Your task to perform on an android device: show emergency info Image 0: 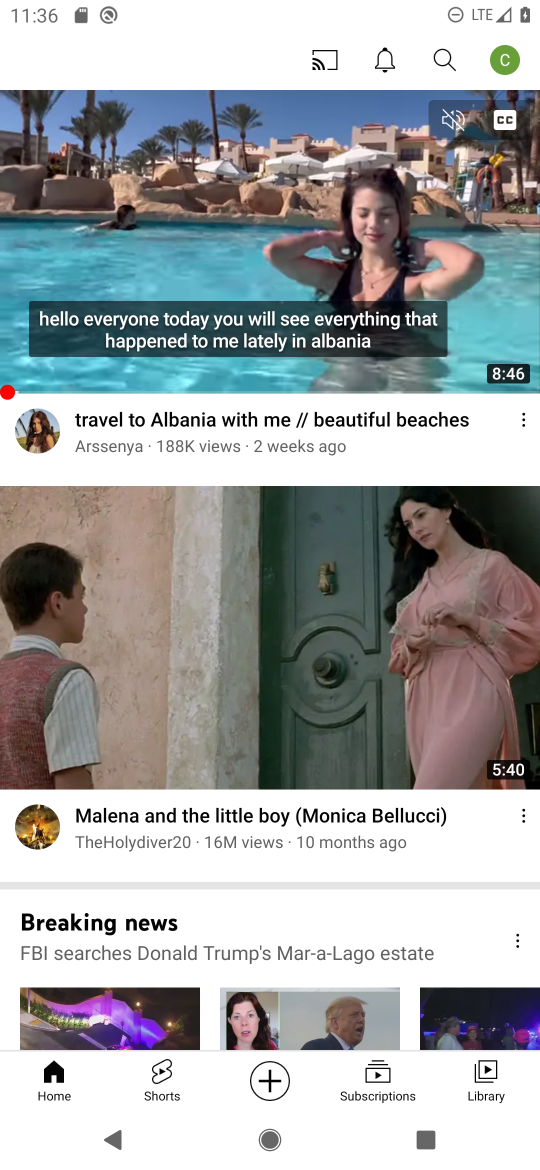
Step 0: press home button
Your task to perform on an android device: show emergency info Image 1: 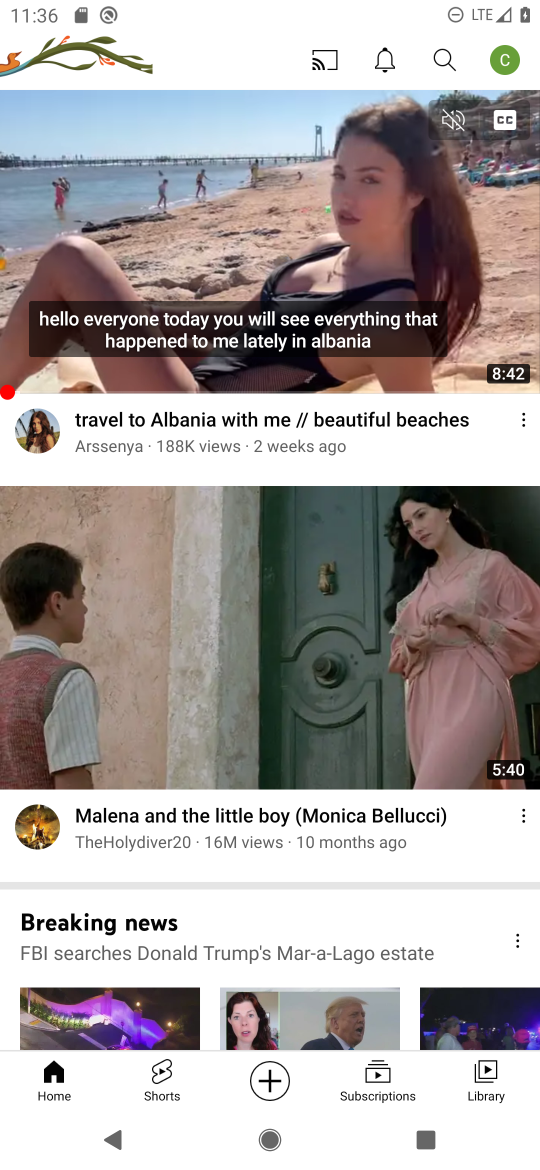
Step 1: press home button
Your task to perform on an android device: show emergency info Image 2: 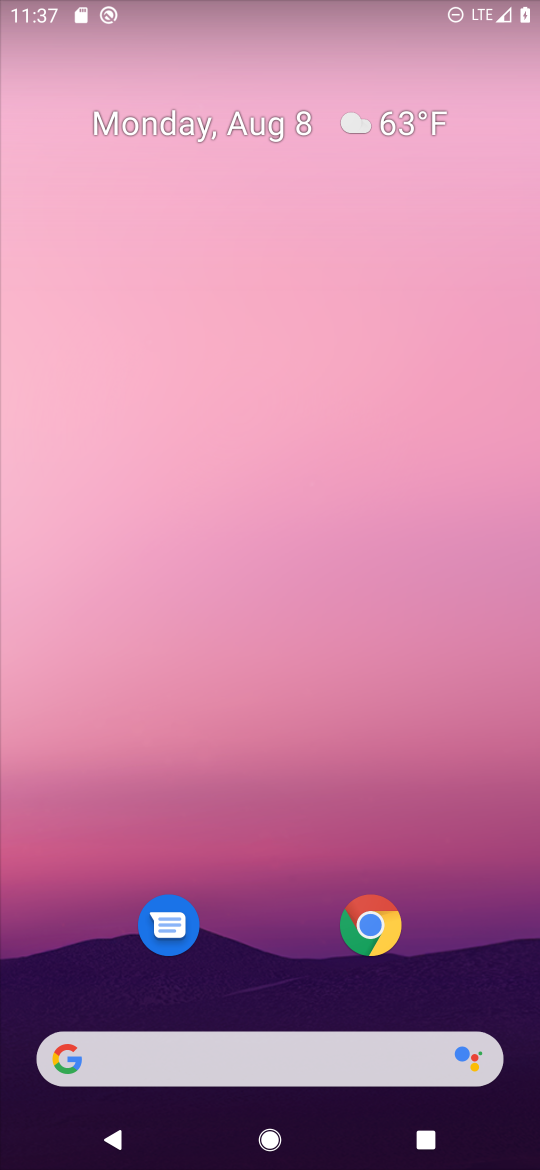
Step 2: drag from (266, 883) to (311, 409)
Your task to perform on an android device: show emergency info Image 3: 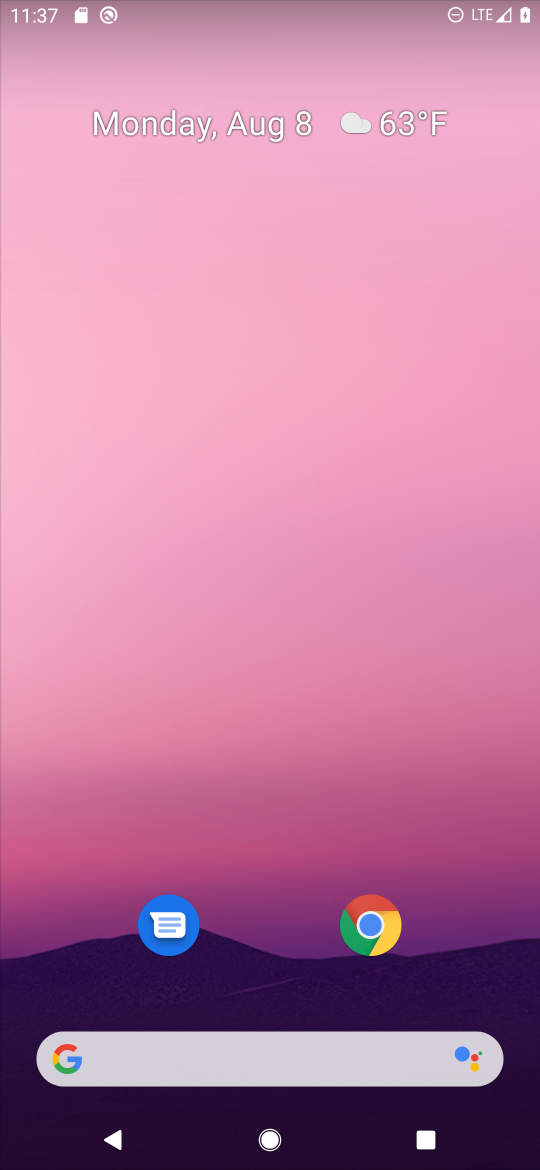
Step 3: drag from (254, 986) to (201, 362)
Your task to perform on an android device: show emergency info Image 4: 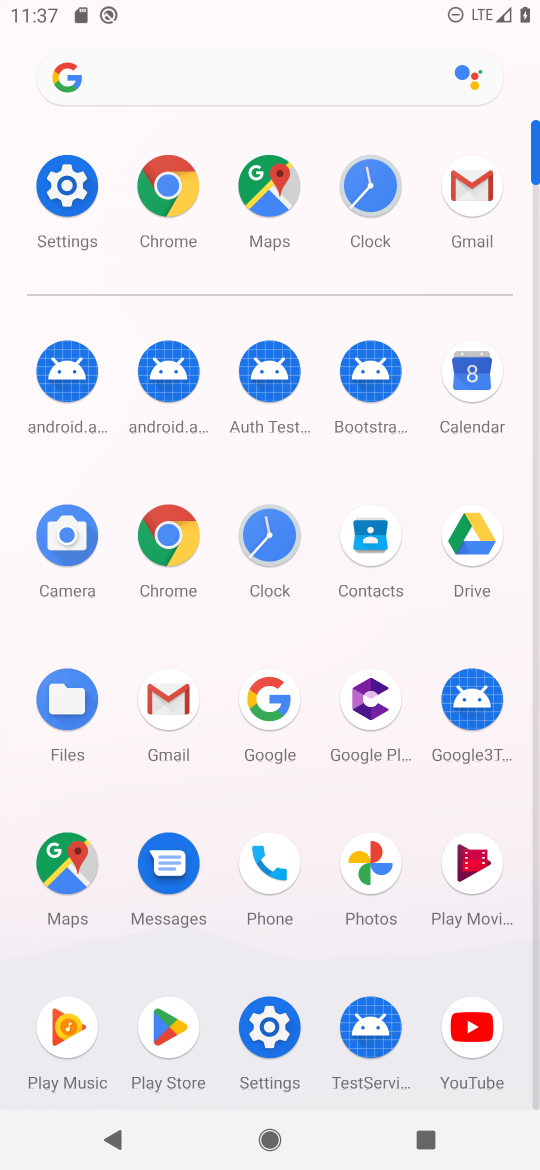
Step 4: click (68, 169)
Your task to perform on an android device: show emergency info Image 5: 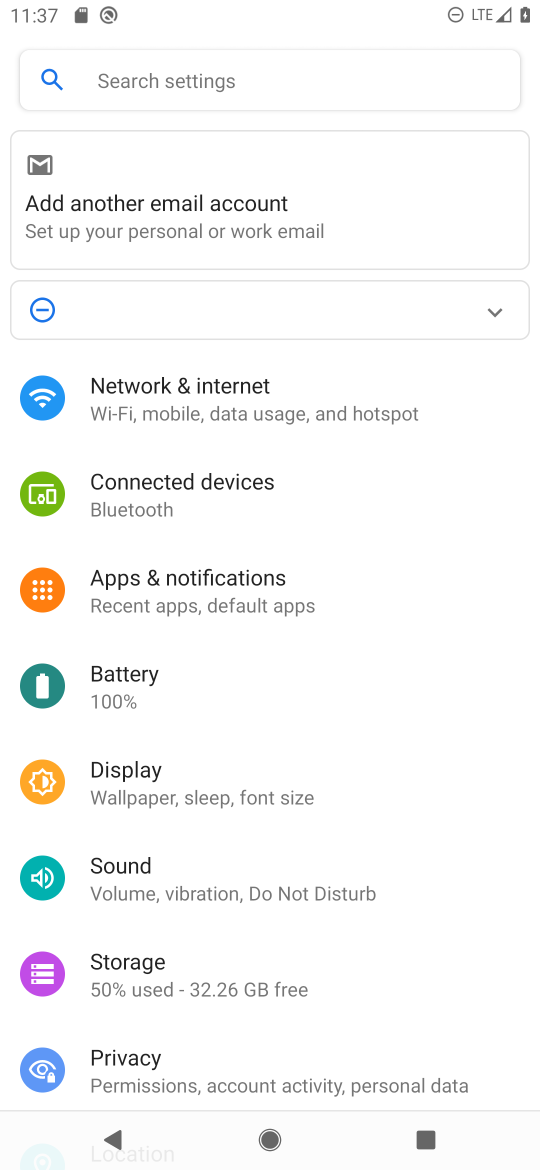
Step 5: drag from (248, 942) to (280, 169)
Your task to perform on an android device: show emergency info Image 6: 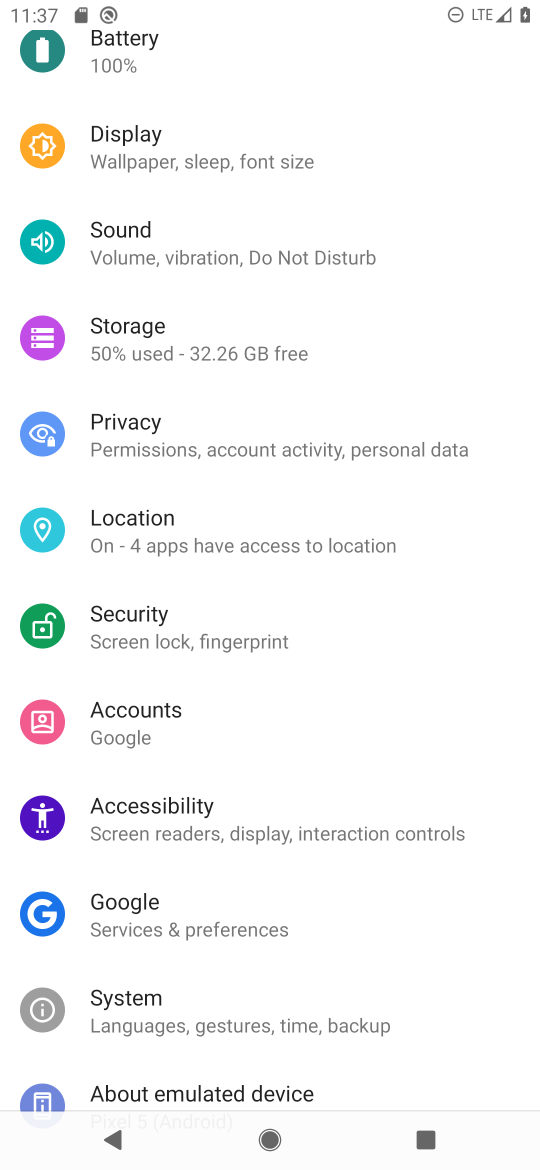
Step 6: drag from (188, 983) to (248, 586)
Your task to perform on an android device: show emergency info Image 7: 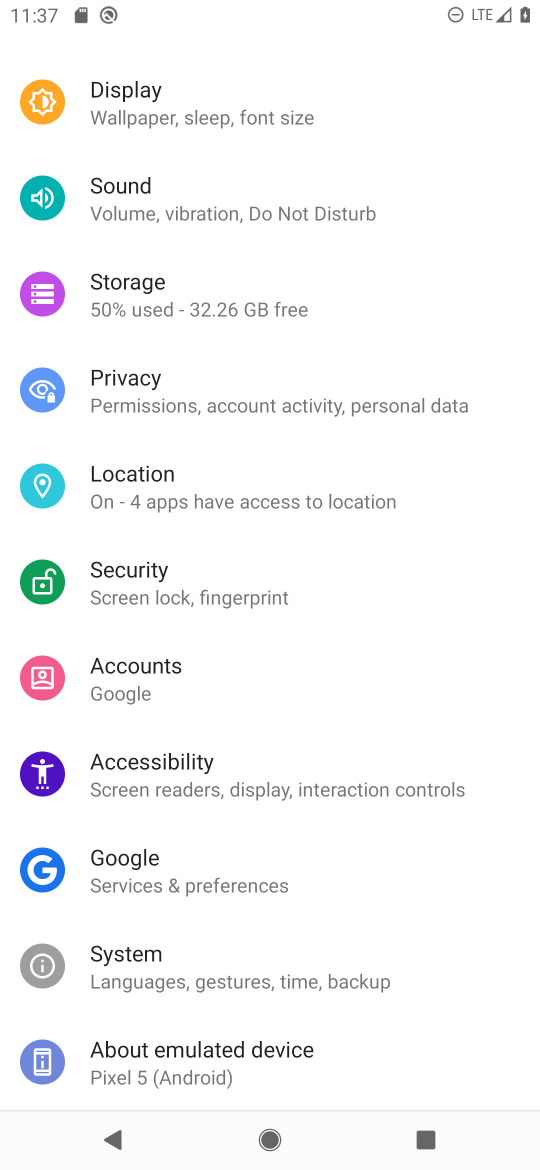
Step 7: click (166, 1068)
Your task to perform on an android device: show emergency info Image 8: 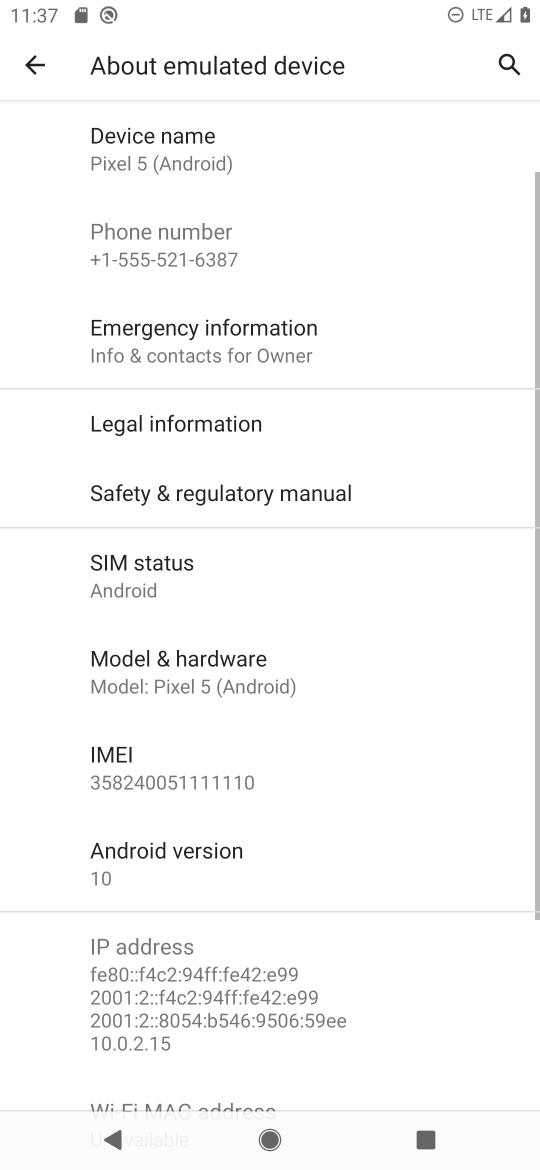
Step 8: drag from (290, 1028) to (360, 369)
Your task to perform on an android device: show emergency info Image 9: 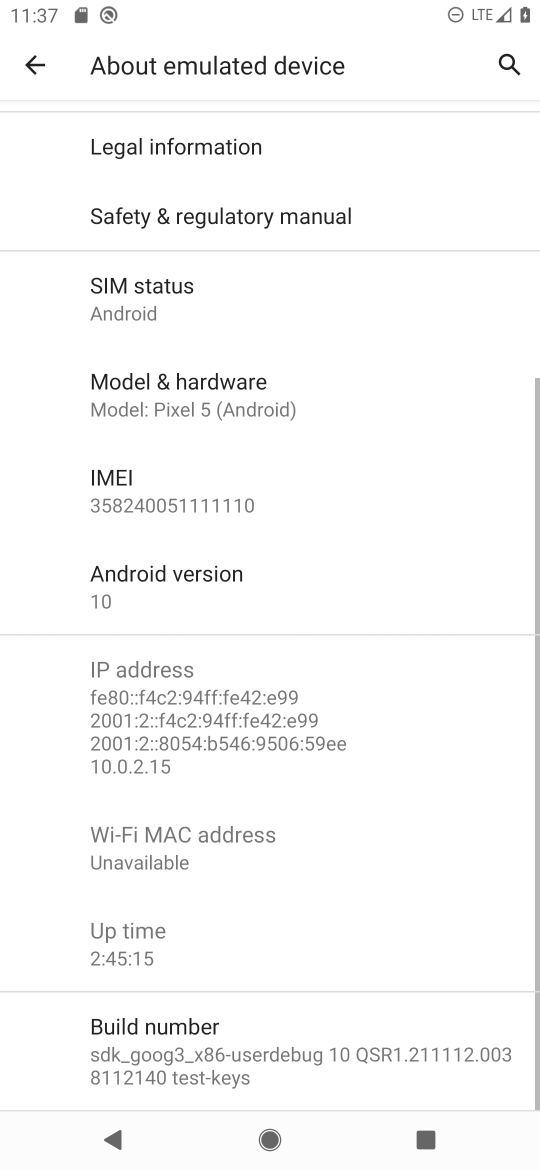
Step 9: drag from (298, 287) to (302, 860)
Your task to perform on an android device: show emergency info Image 10: 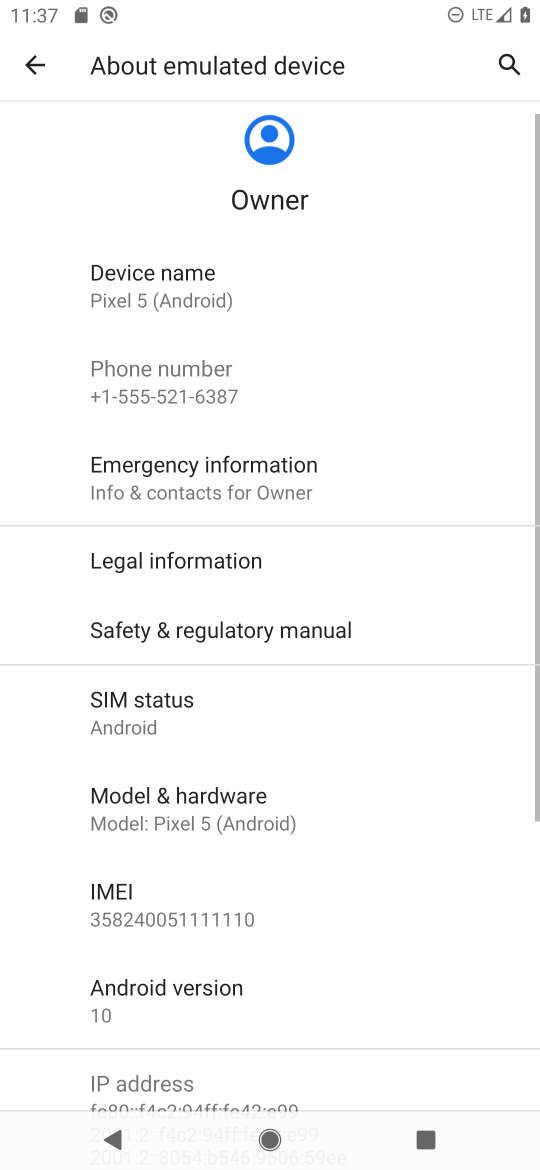
Step 10: click (233, 488)
Your task to perform on an android device: show emergency info Image 11: 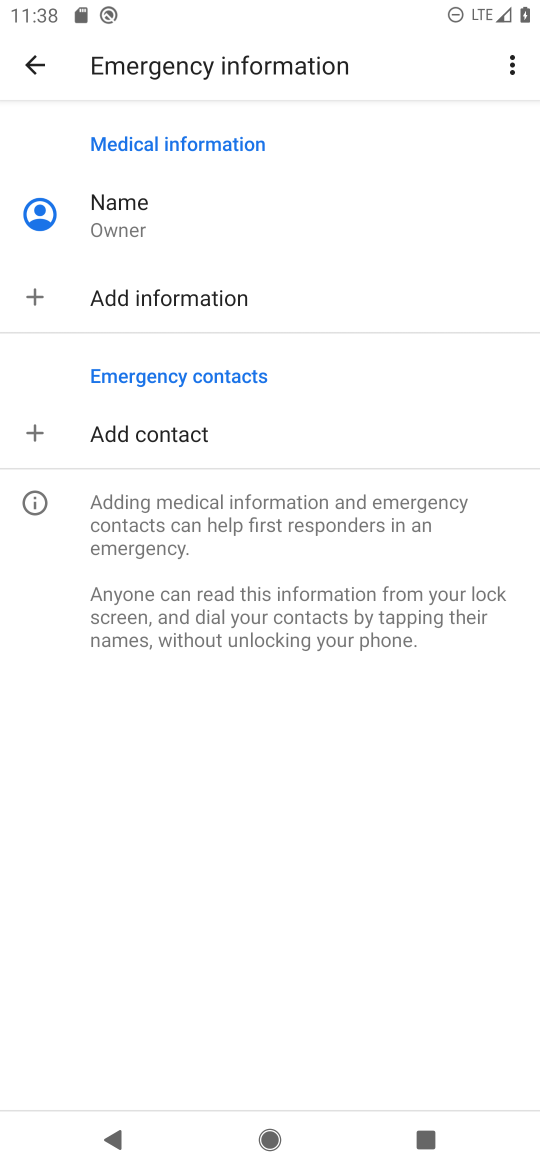
Step 11: task complete